Your task to perform on an android device: Open the calendar and show me this week's events? Image 0: 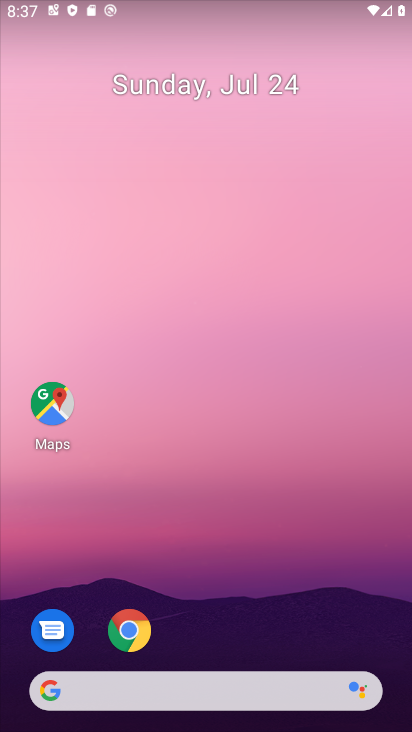
Step 0: drag from (224, 631) to (193, 100)
Your task to perform on an android device: Open the calendar and show me this week's events? Image 1: 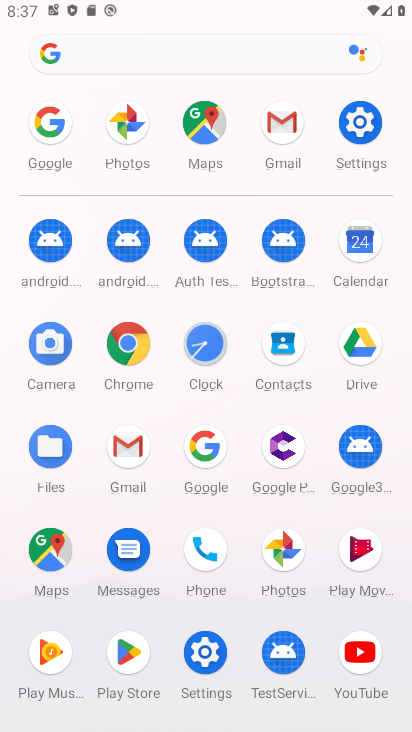
Step 1: click (349, 238)
Your task to perform on an android device: Open the calendar and show me this week's events? Image 2: 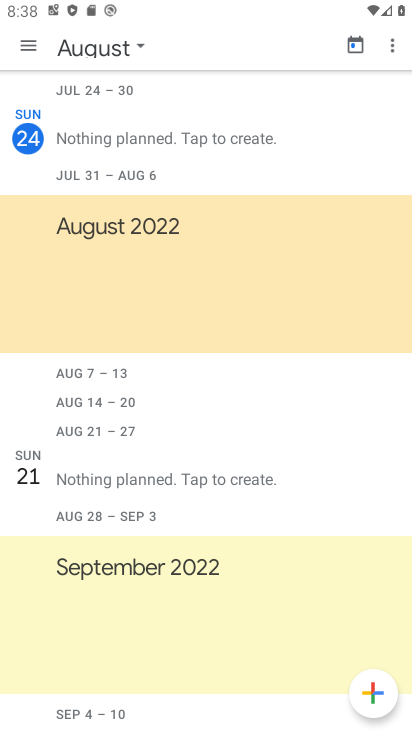
Step 2: click (150, 58)
Your task to perform on an android device: Open the calendar and show me this week's events? Image 3: 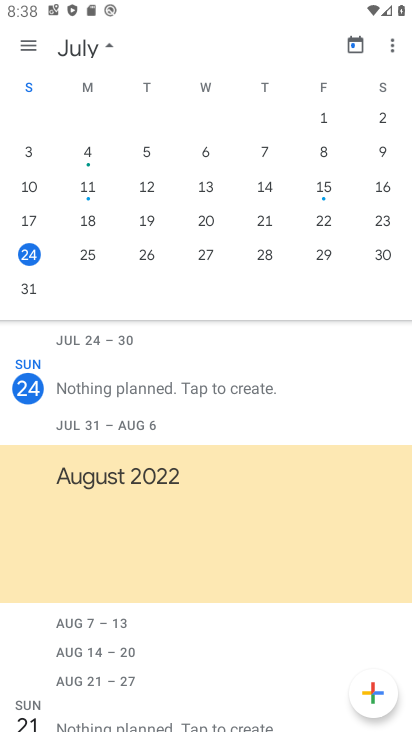
Step 3: click (37, 249)
Your task to perform on an android device: Open the calendar and show me this week's events? Image 4: 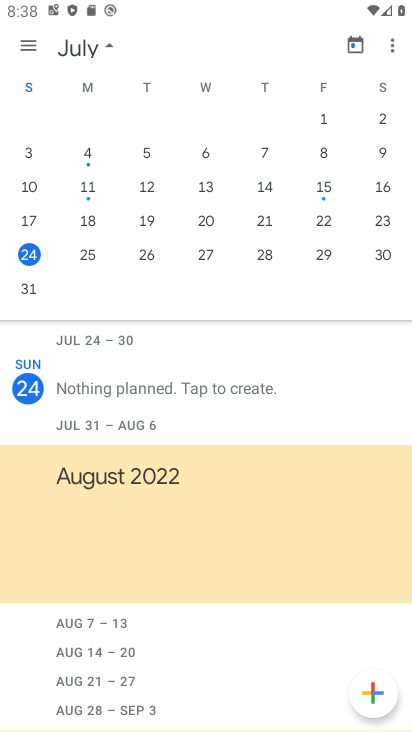
Step 4: task complete